Your task to perform on an android device: Go to Android settings Image 0: 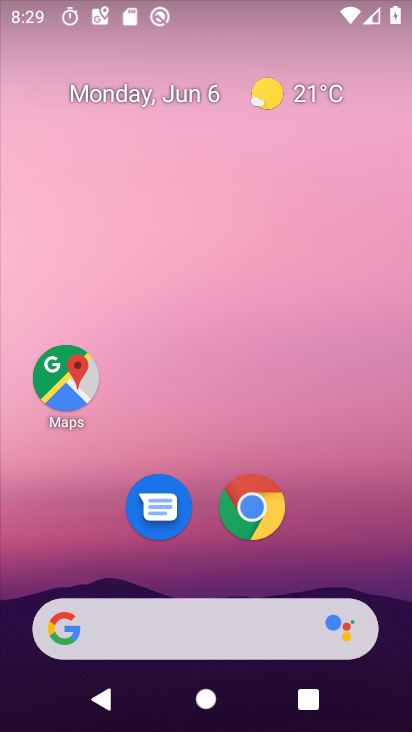
Step 0: press home button
Your task to perform on an android device: Go to Android settings Image 1: 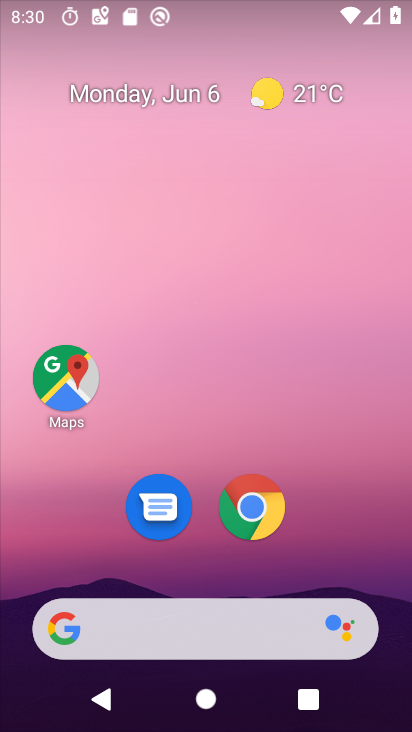
Step 1: drag from (344, 572) to (307, 0)
Your task to perform on an android device: Go to Android settings Image 2: 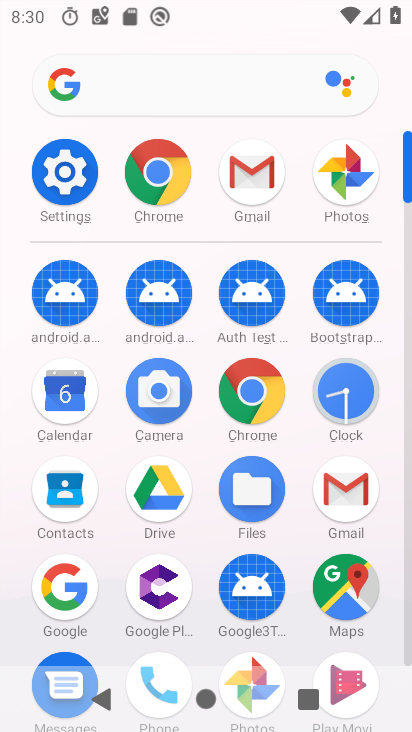
Step 2: click (63, 163)
Your task to perform on an android device: Go to Android settings Image 3: 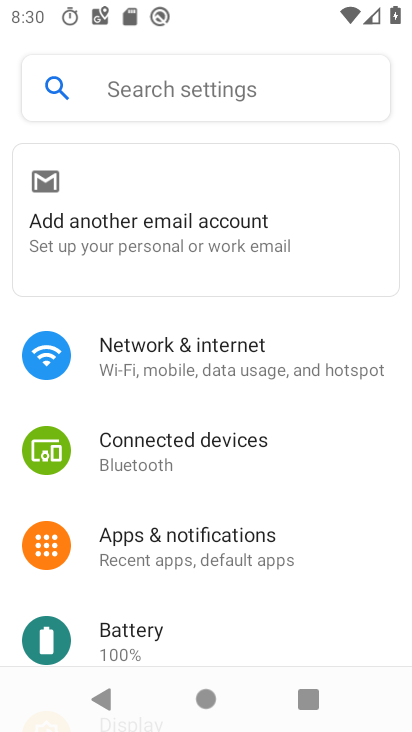
Step 3: drag from (259, 620) to (245, 50)
Your task to perform on an android device: Go to Android settings Image 4: 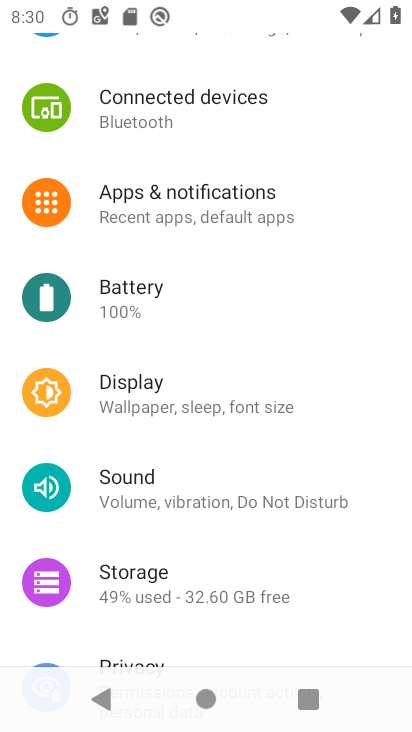
Step 4: drag from (269, 604) to (260, 131)
Your task to perform on an android device: Go to Android settings Image 5: 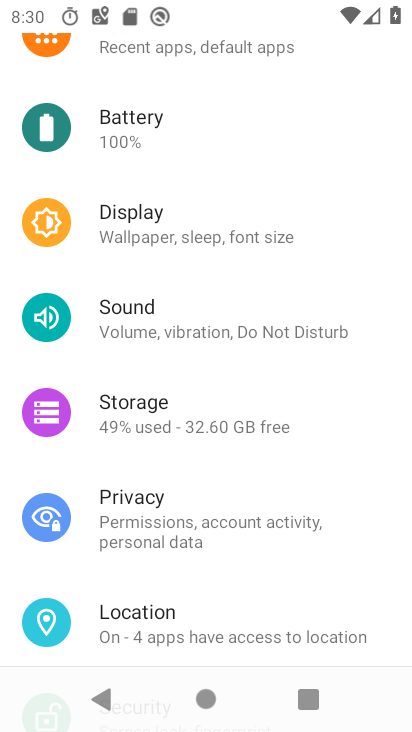
Step 5: drag from (252, 622) to (259, 152)
Your task to perform on an android device: Go to Android settings Image 6: 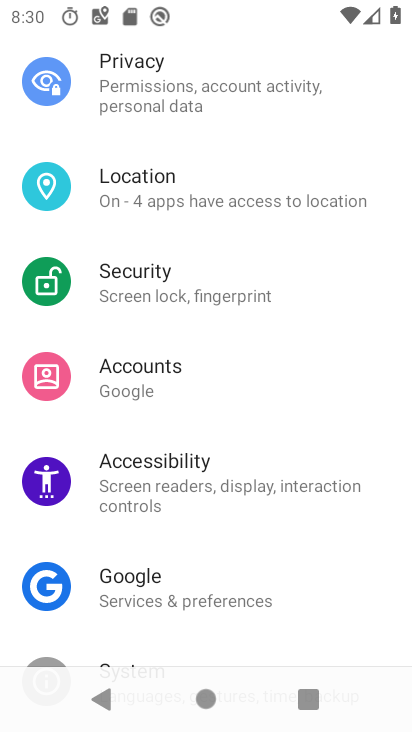
Step 6: drag from (245, 596) to (240, 4)
Your task to perform on an android device: Go to Android settings Image 7: 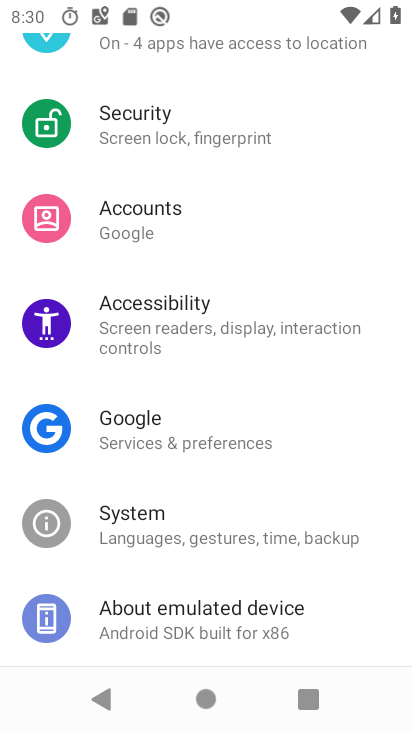
Step 7: click (179, 607)
Your task to perform on an android device: Go to Android settings Image 8: 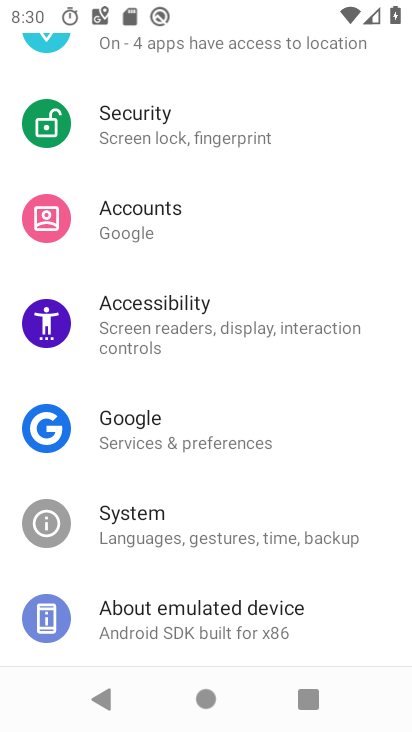
Step 8: drag from (287, 591) to (266, 154)
Your task to perform on an android device: Go to Android settings Image 9: 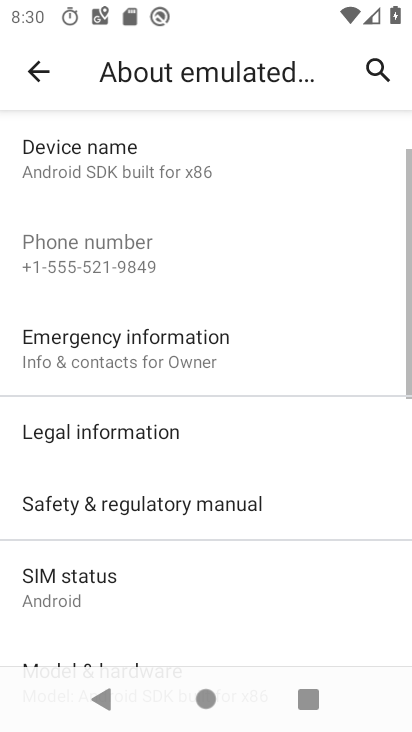
Step 9: drag from (264, 576) to (258, 224)
Your task to perform on an android device: Go to Android settings Image 10: 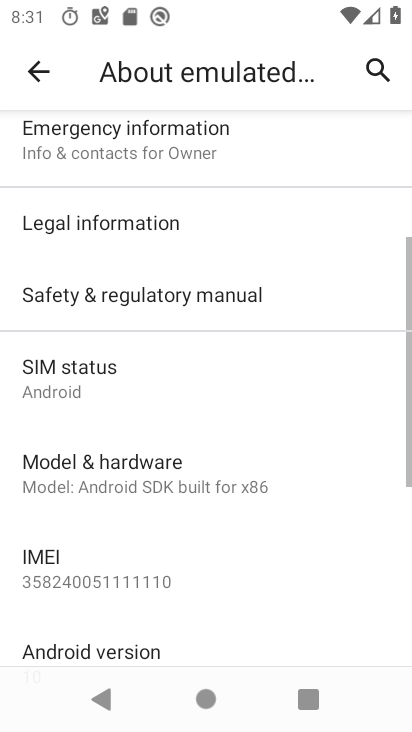
Step 10: click (156, 635)
Your task to perform on an android device: Go to Android settings Image 11: 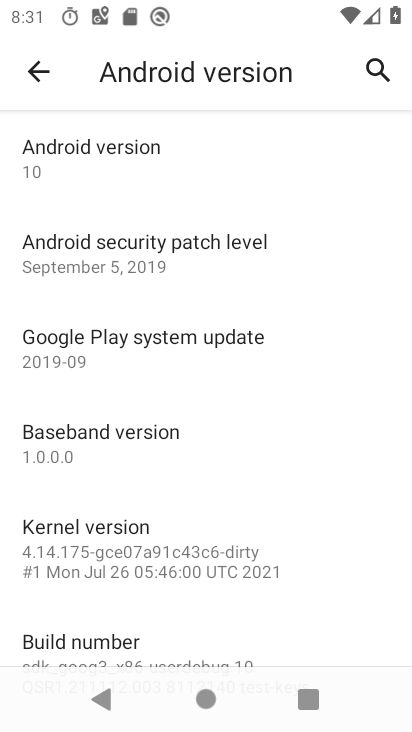
Step 11: task complete